Your task to perform on an android device: set an alarm Image 0: 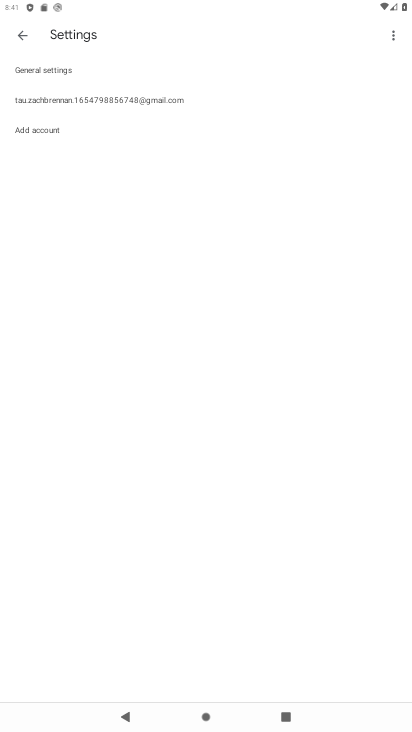
Step 0: press home button
Your task to perform on an android device: set an alarm Image 1: 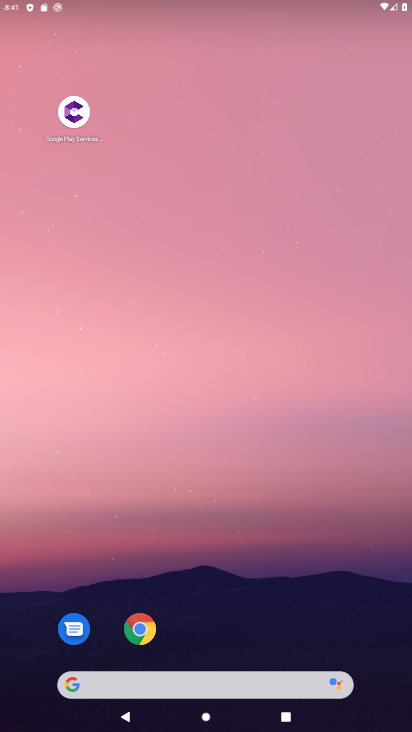
Step 1: drag from (263, 645) to (238, 53)
Your task to perform on an android device: set an alarm Image 2: 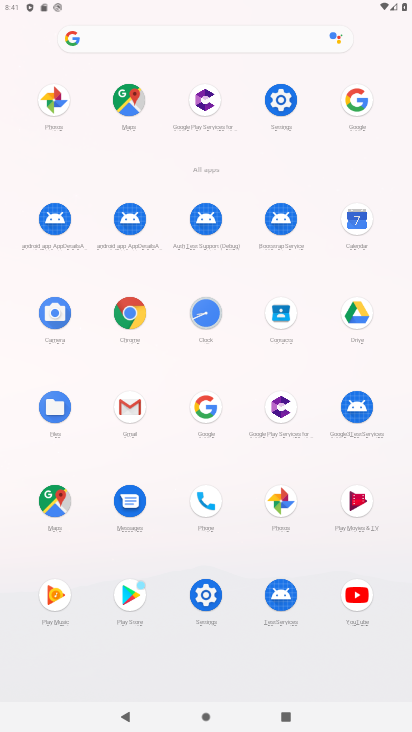
Step 2: click (200, 307)
Your task to perform on an android device: set an alarm Image 3: 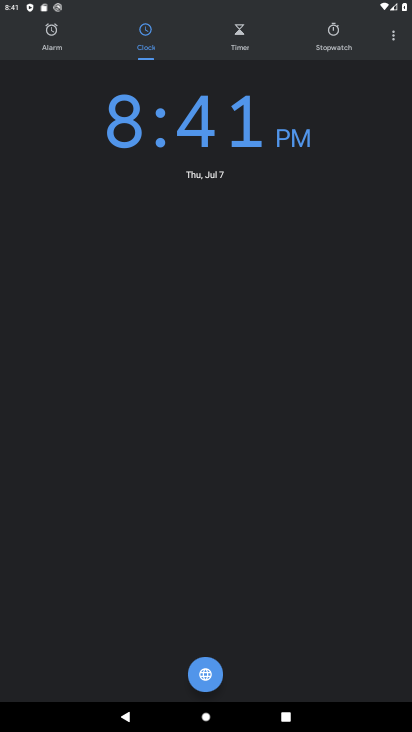
Step 3: click (48, 38)
Your task to perform on an android device: set an alarm Image 4: 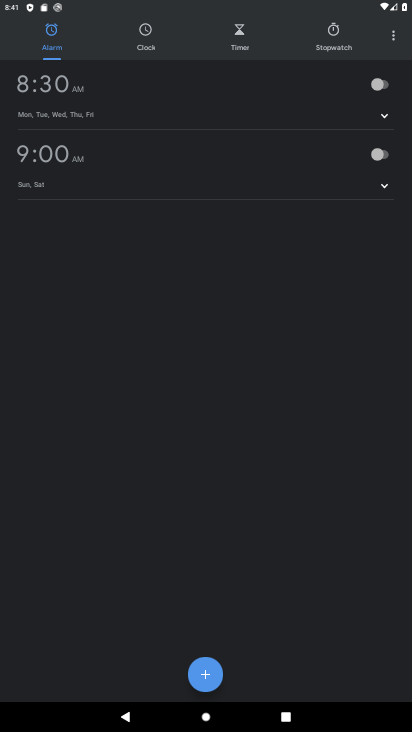
Step 4: click (370, 90)
Your task to perform on an android device: set an alarm Image 5: 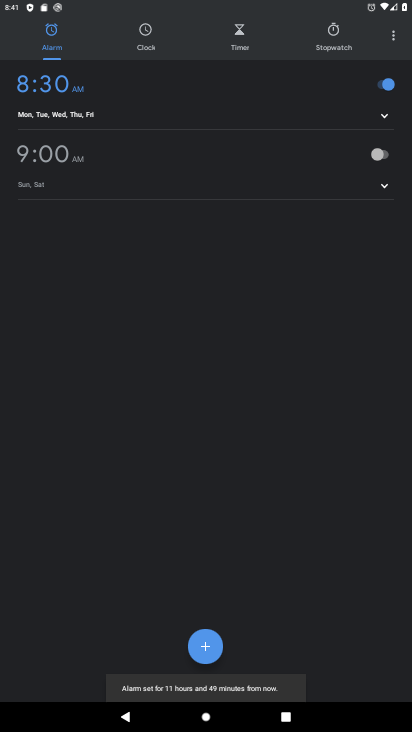
Step 5: task complete